Your task to perform on an android device: set the stopwatch Image 0: 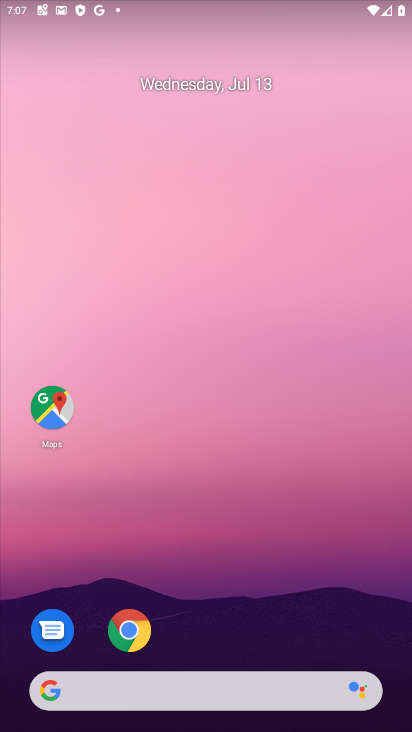
Step 0: drag from (240, 614) to (260, 5)
Your task to perform on an android device: set the stopwatch Image 1: 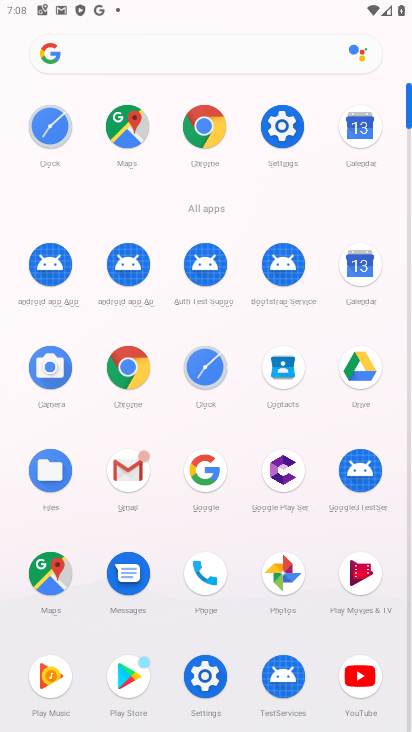
Step 1: click (204, 380)
Your task to perform on an android device: set the stopwatch Image 2: 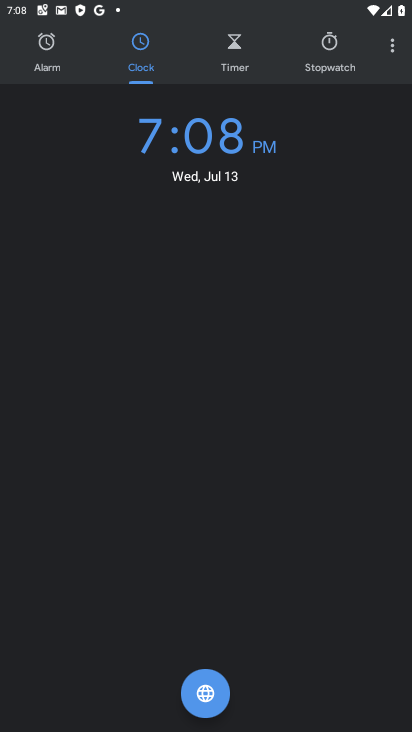
Step 2: click (339, 28)
Your task to perform on an android device: set the stopwatch Image 3: 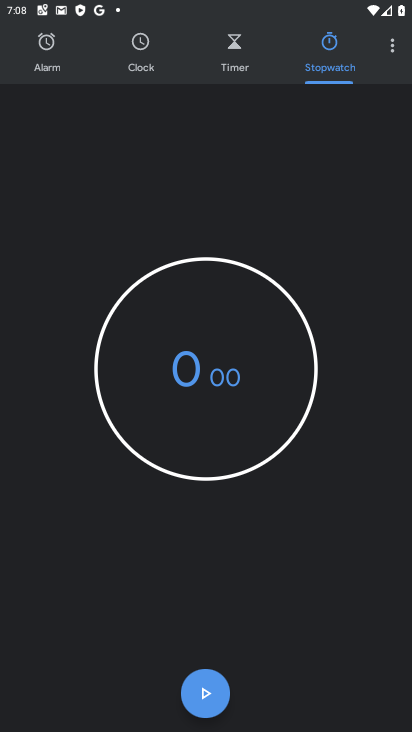
Step 3: click (203, 688)
Your task to perform on an android device: set the stopwatch Image 4: 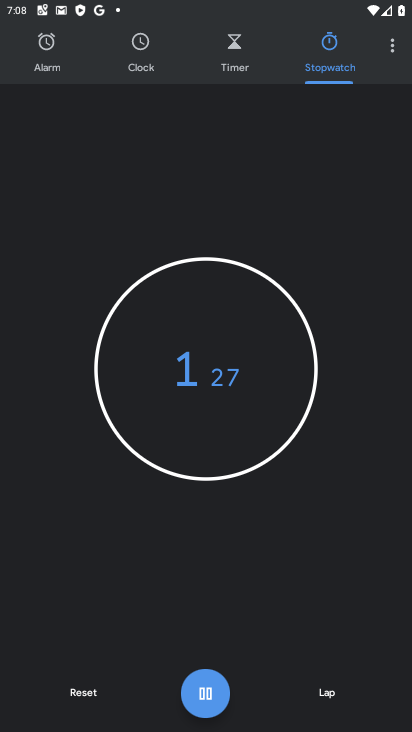
Step 4: click (203, 688)
Your task to perform on an android device: set the stopwatch Image 5: 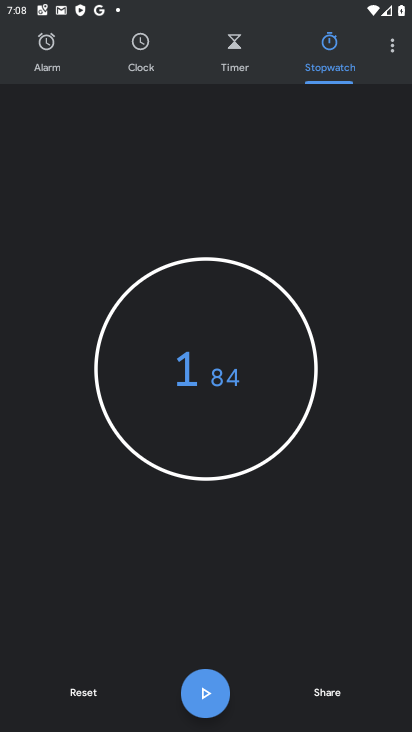
Step 5: task complete